Your task to perform on an android device: turn on airplane mode Image 0: 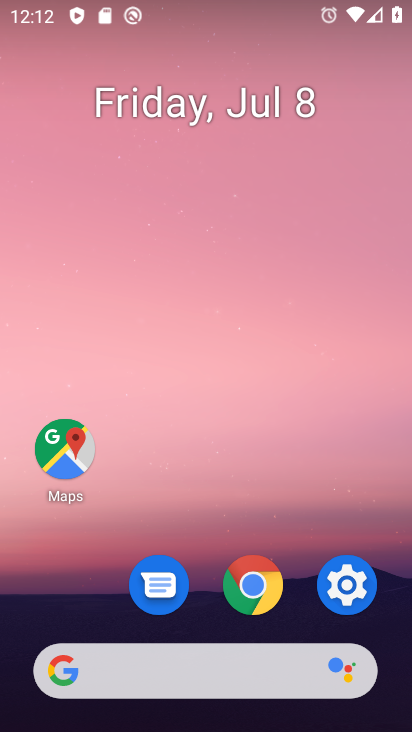
Step 0: click (339, 590)
Your task to perform on an android device: turn on airplane mode Image 1: 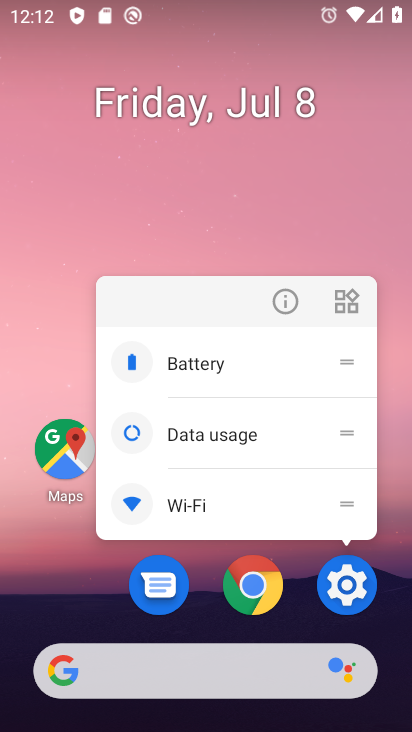
Step 1: click (347, 572)
Your task to perform on an android device: turn on airplane mode Image 2: 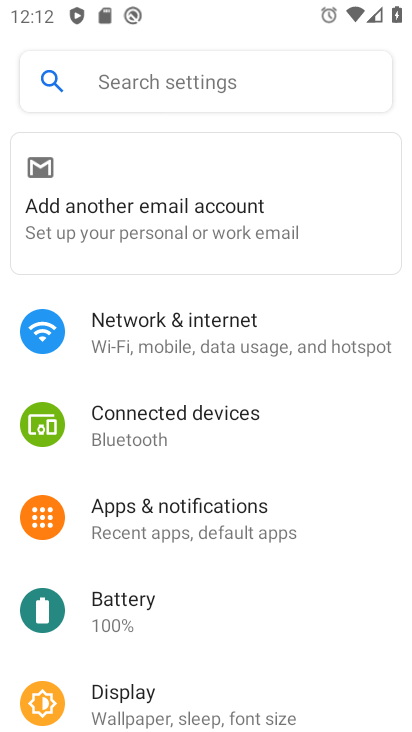
Step 2: click (232, 335)
Your task to perform on an android device: turn on airplane mode Image 3: 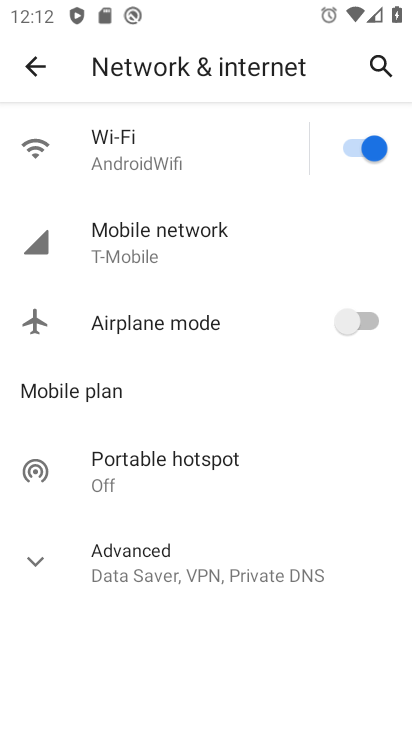
Step 3: click (344, 318)
Your task to perform on an android device: turn on airplane mode Image 4: 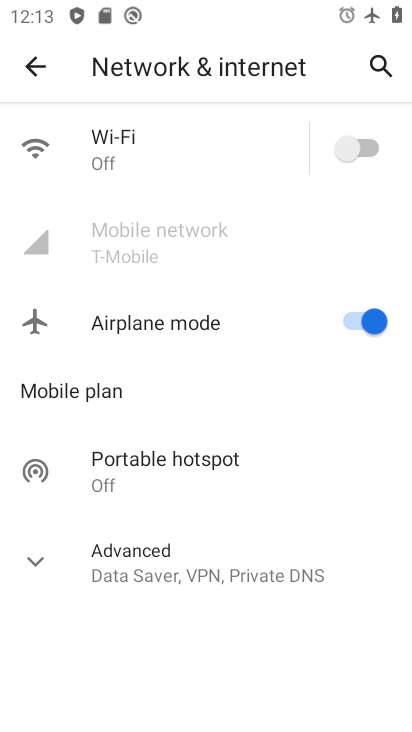
Step 4: task complete